Your task to perform on an android device: turn on translation in the chrome app Image 0: 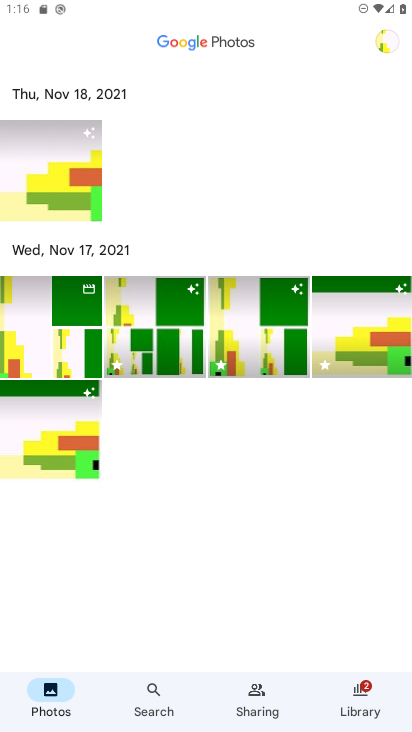
Step 0: drag from (238, 479) to (240, 351)
Your task to perform on an android device: turn on translation in the chrome app Image 1: 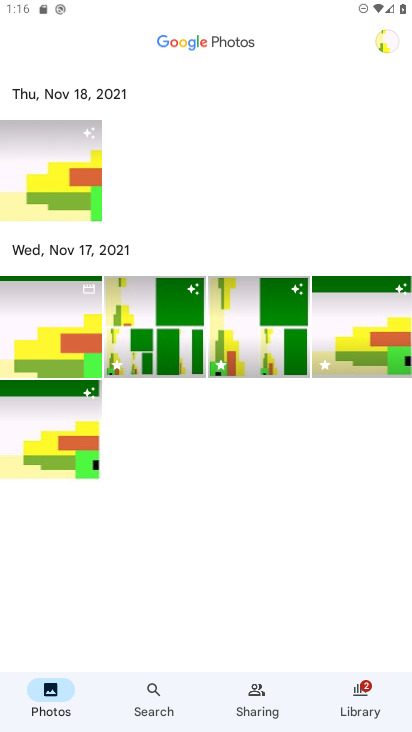
Step 1: click (291, 589)
Your task to perform on an android device: turn on translation in the chrome app Image 2: 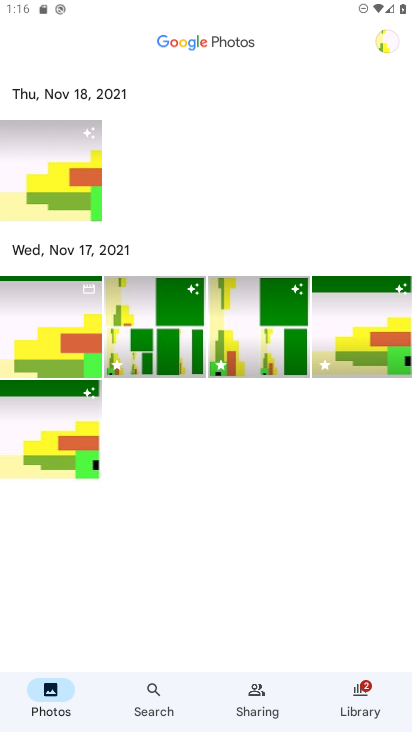
Step 2: press home button
Your task to perform on an android device: turn on translation in the chrome app Image 3: 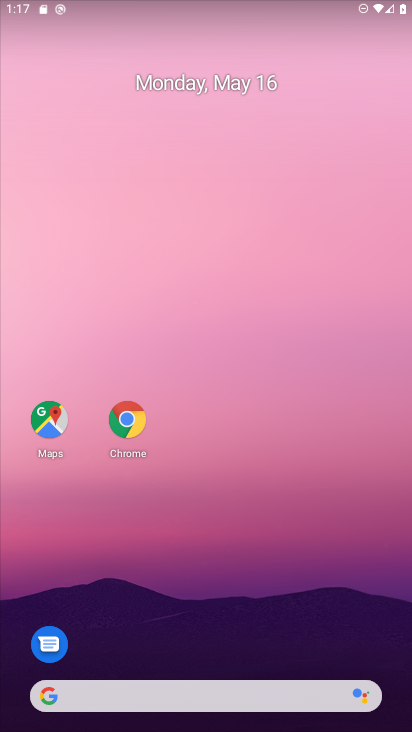
Step 3: drag from (124, 604) to (209, 358)
Your task to perform on an android device: turn on translation in the chrome app Image 4: 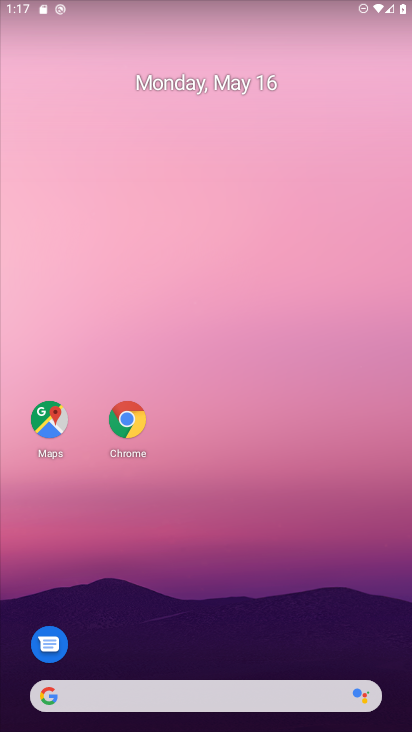
Step 4: drag from (212, 620) to (252, 105)
Your task to perform on an android device: turn on translation in the chrome app Image 5: 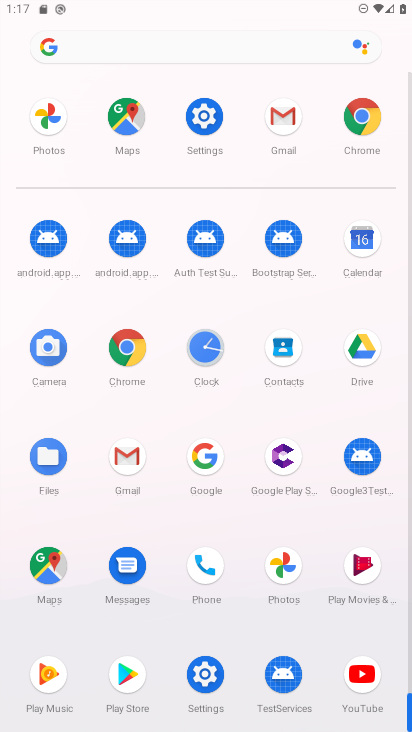
Step 5: click (360, 127)
Your task to perform on an android device: turn on translation in the chrome app Image 6: 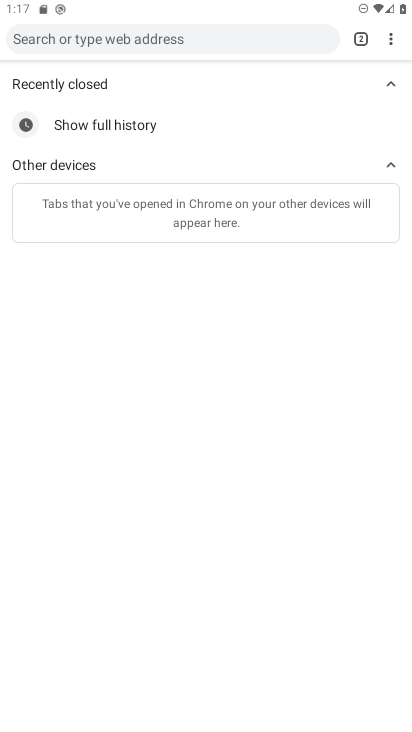
Step 6: click (397, 46)
Your task to perform on an android device: turn on translation in the chrome app Image 7: 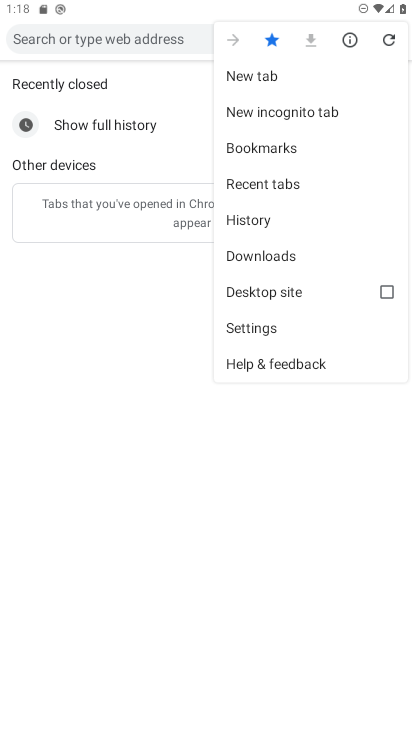
Step 7: click (246, 328)
Your task to perform on an android device: turn on translation in the chrome app Image 8: 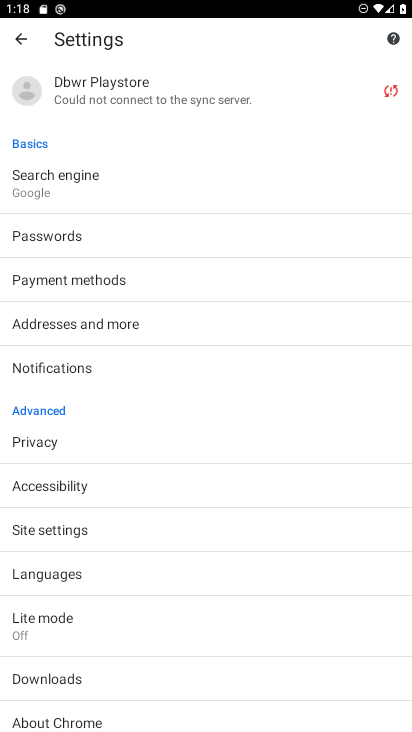
Step 8: click (41, 577)
Your task to perform on an android device: turn on translation in the chrome app Image 9: 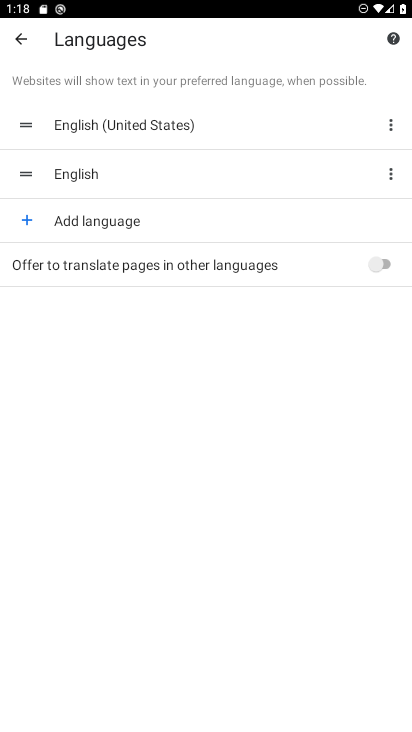
Step 9: click (199, 253)
Your task to perform on an android device: turn on translation in the chrome app Image 10: 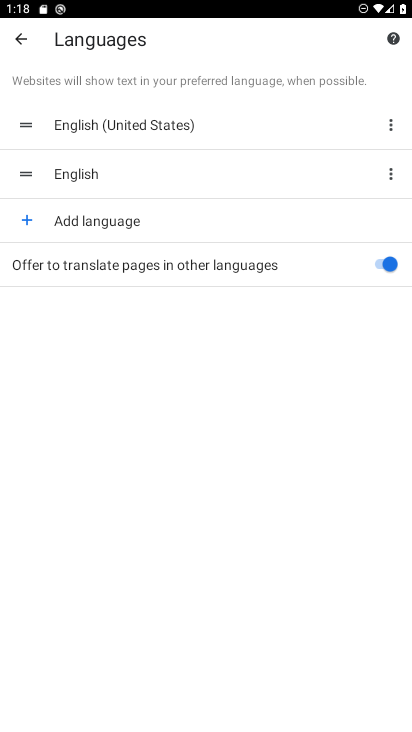
Step 10: task complete